Your task to perform on an android device: find which apps use the phone's location Image 0: 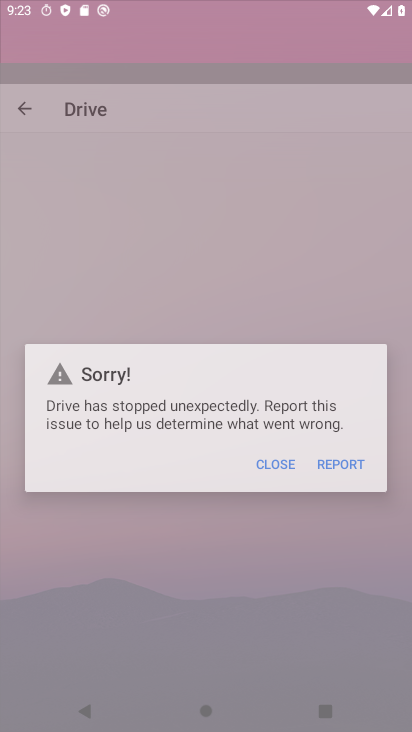
Step 0: click (22, 40)
Your task to perform on an android device: find which apps use the phone's location Image 1: 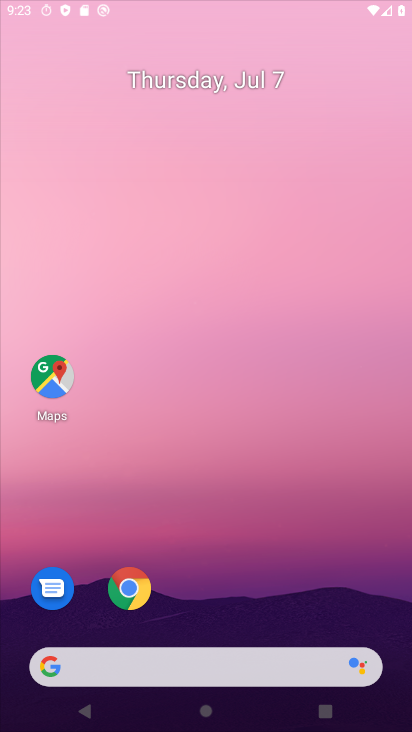
Step 1: drag from (280, 691) to (218, 64)
Your task to perform on an android device: find which apps use the phone's location Image 2: 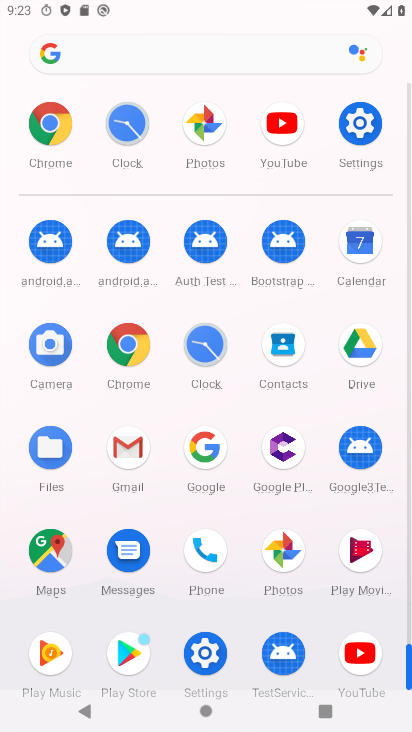
Step 2: click (354, 125)
Your task to perform on an android device: find which apps use the phone's location Image 3: 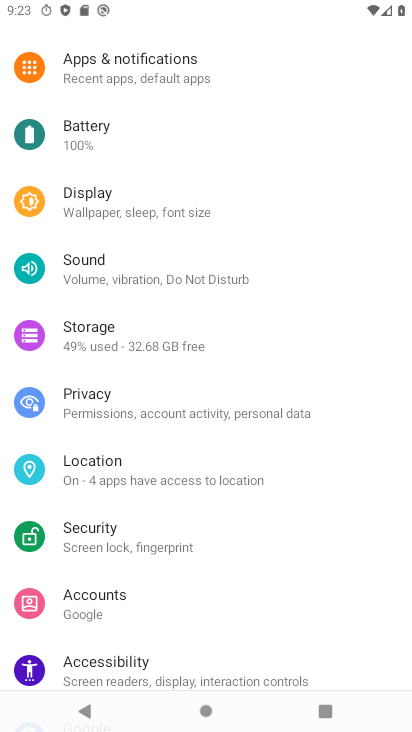
Step 3: click (102, 464)
Your task to perform on an android device: find which apps use the phone's location Image 4: 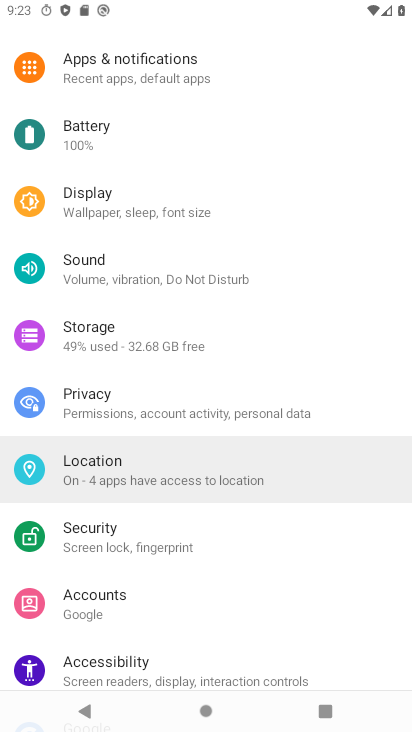
Step 4: click (102, 464)
Your task to perform on an android device: find which apps use the phone's location Image 5: 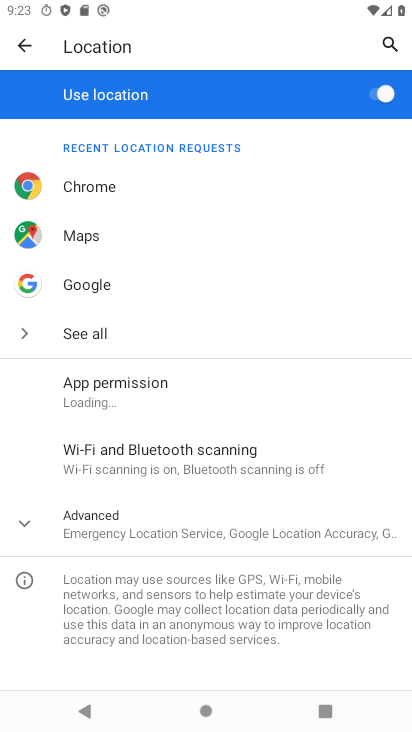
Step 5: click (100, 397)
Your task to perform on an android device: find which apps use the phone's location Image 6: 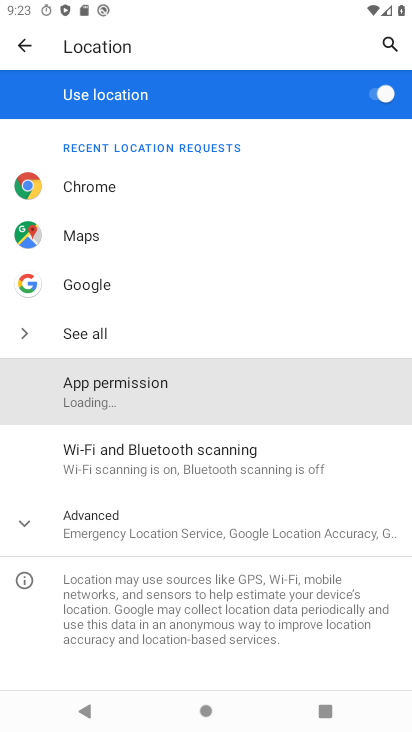
Step 6: click (96, 394)
Your task to perform on an android device: find which apps use the phone's location Image 7: 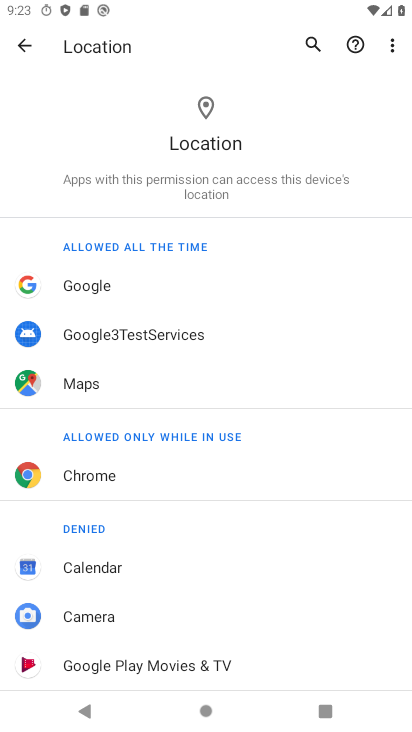
Step 7: task complete